Your task to perform on an android device: Go to sound settings Image 0: 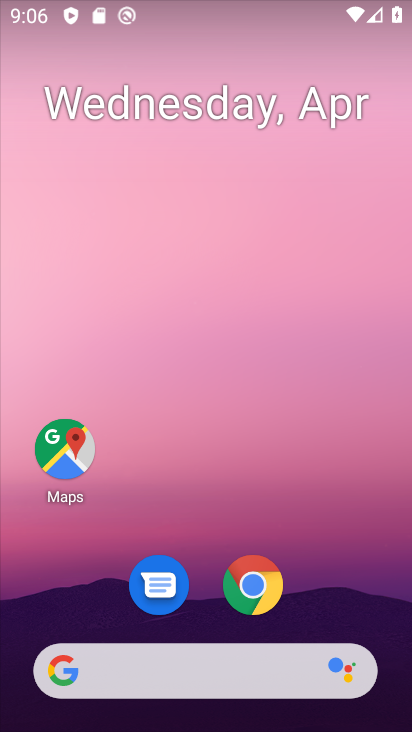
Step 0: drag from (353, 439) to (330, 84)
Your task to perform on an android device: Go to sound settings Image 1: 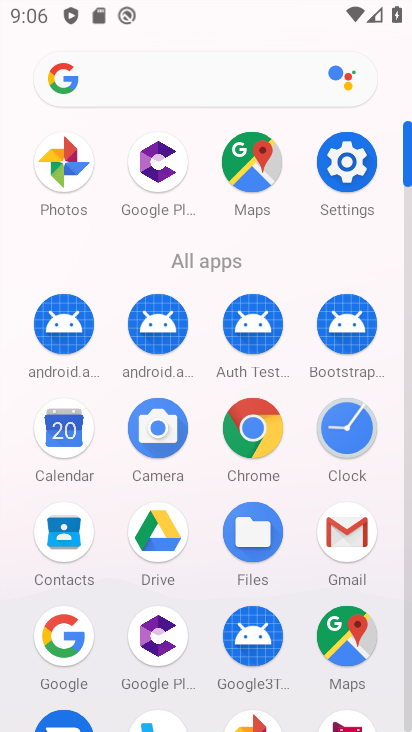
Step 1: click (342, 162)
Your task to perform on an android device: Go to sound settings Image 2: 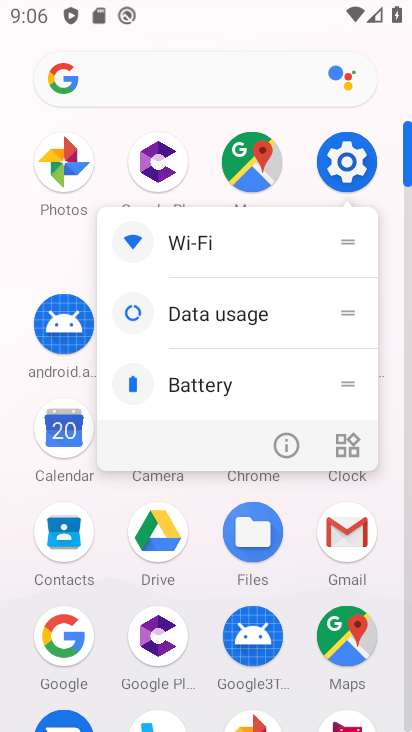
Step 2: click (342, 162)
Your task to perform on an android device: Go to sound settings Image 3: 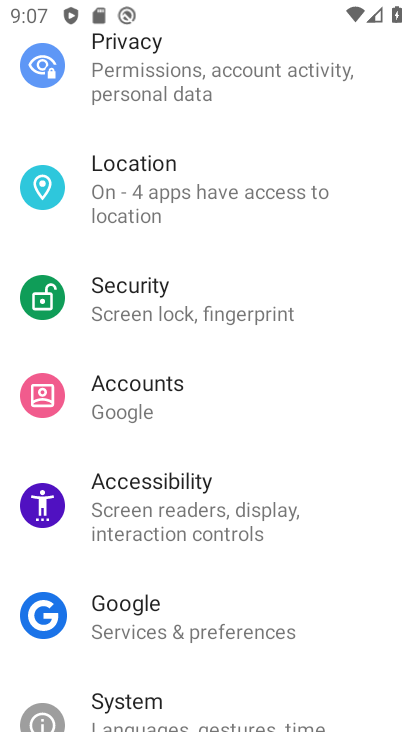
Step 3: drag from (223, 131) to (181, 589)
Your task to perform on an android device: Go to sound settings Image 4: 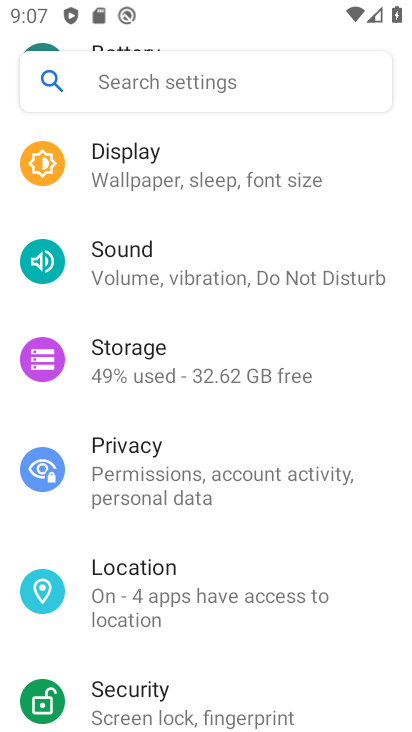
Step 4: click (213, 268)
Your task to perform on an android device: Go to sound settings Image 5: 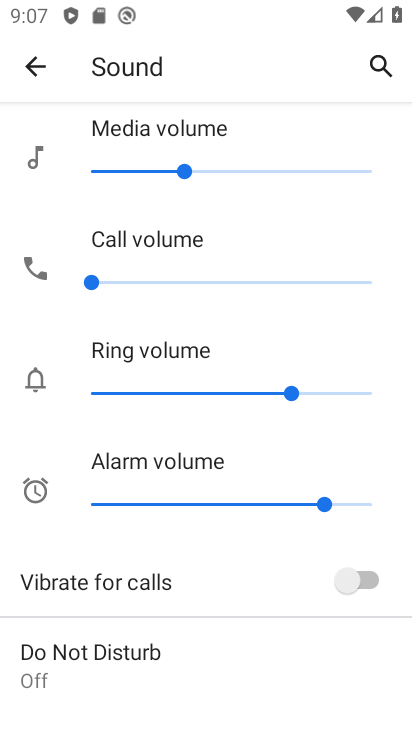
Step 5: task complete